Your task to perform on an android device: Play the last video I watched on Youtube Image 0: 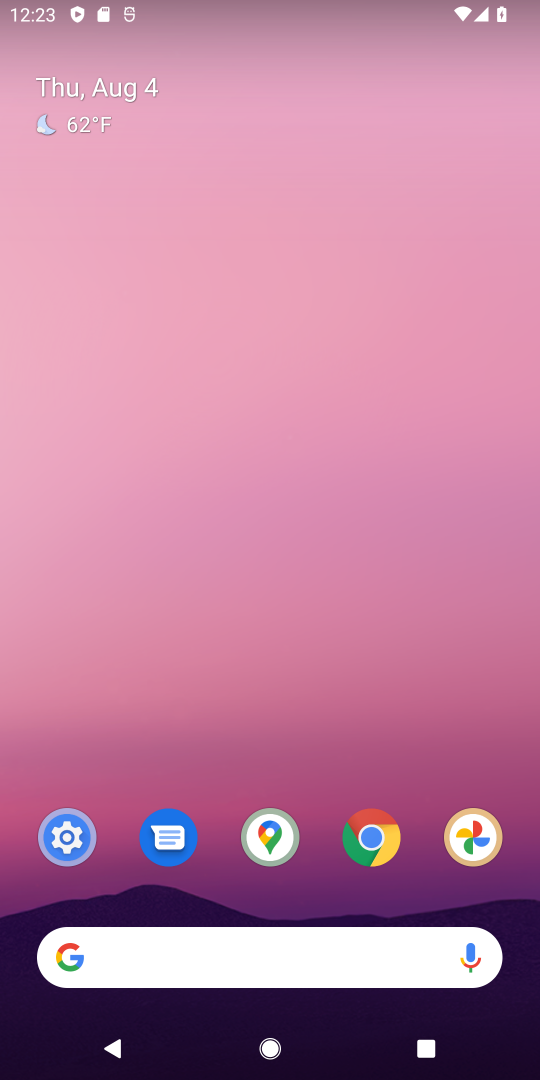
Step 0: drag from (380, 747) to (385, 43)
Your task to perform on an android device: Play the last video I watched on Youtube Image 1: 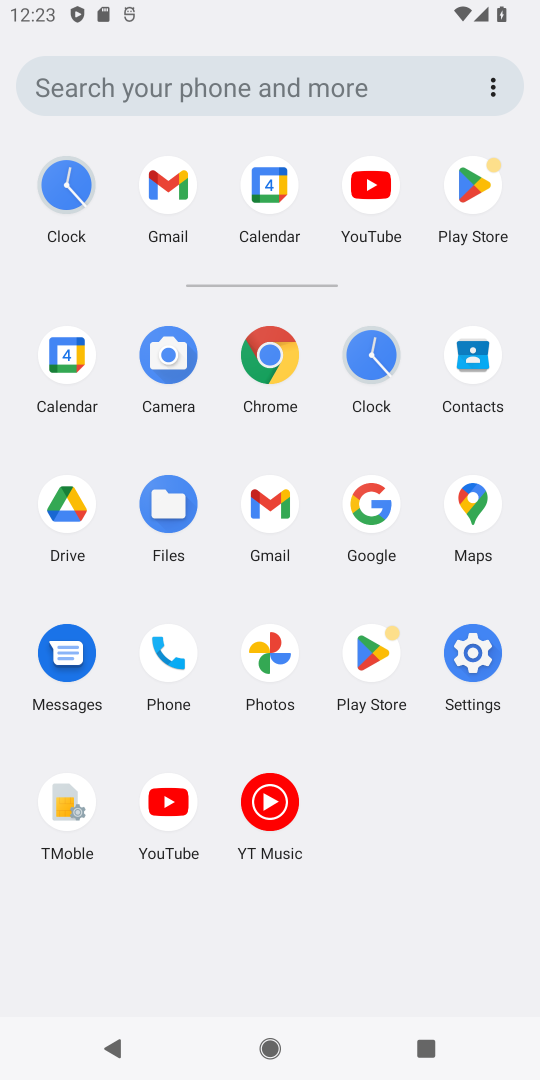
Step 1: click (164, 814)
Your task to perform on an android device: Play the last video I watched on Youtube Image 2: 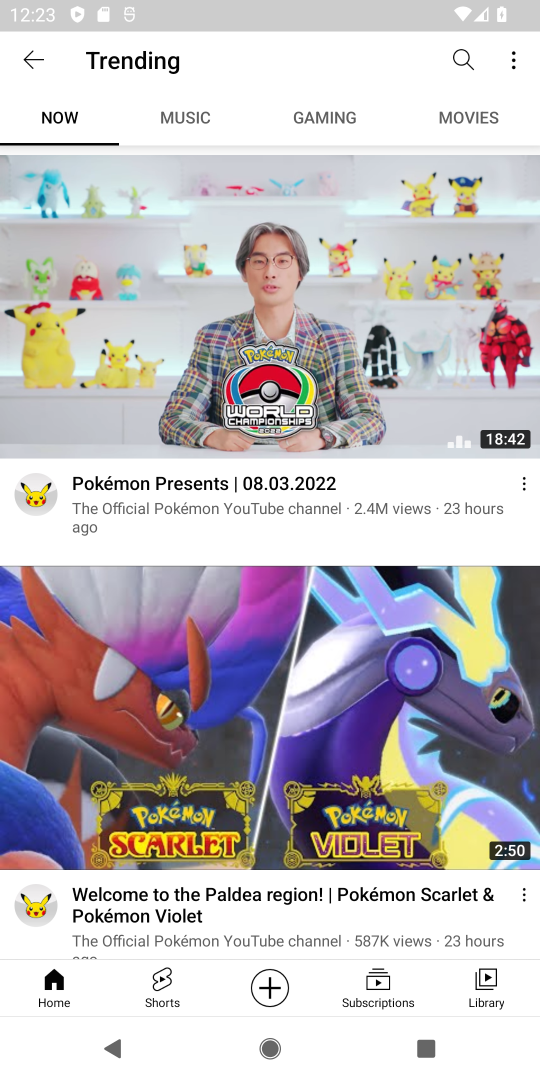
Step 2: click (486, 980)
Your task to perform on an android device: Play the last video I watched on Youtube Image 3: 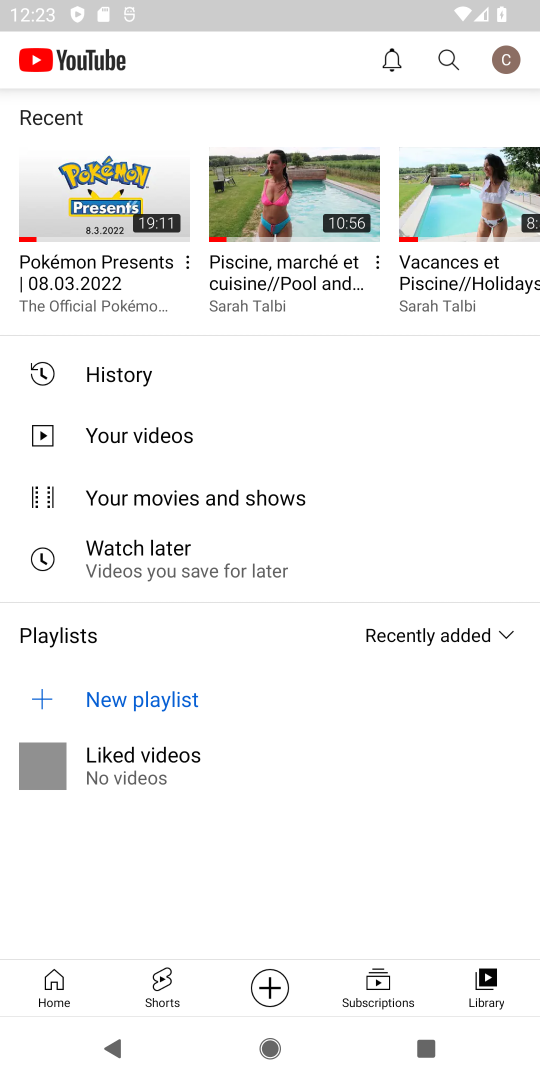
Step 3: click (98, 188)
Your task to perform on an android device: Play the last video I watched on Youtube Image 4: 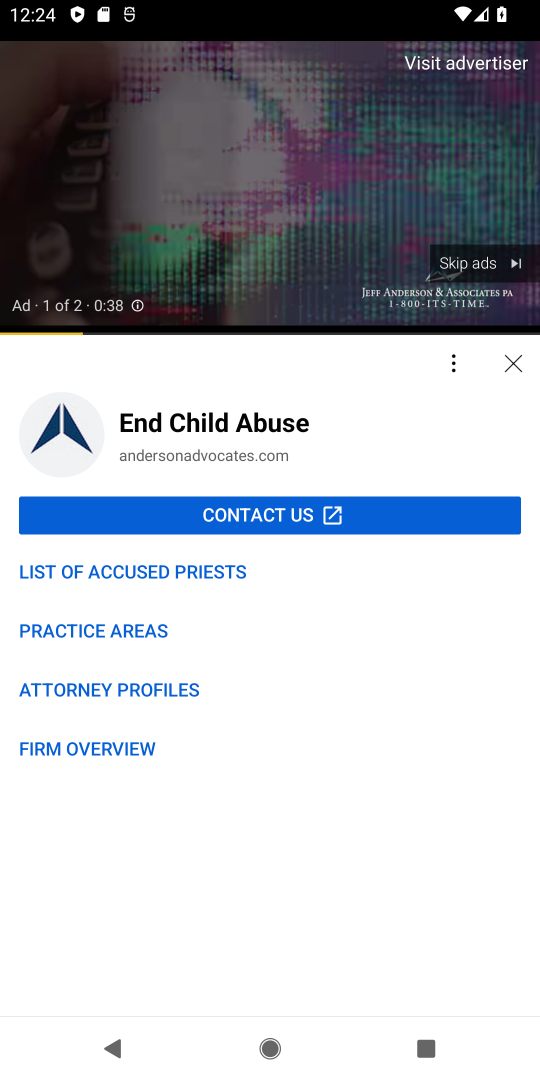
Step 4: task complete